Your task to perform on an android device: Go to Wikipedia Image 0: 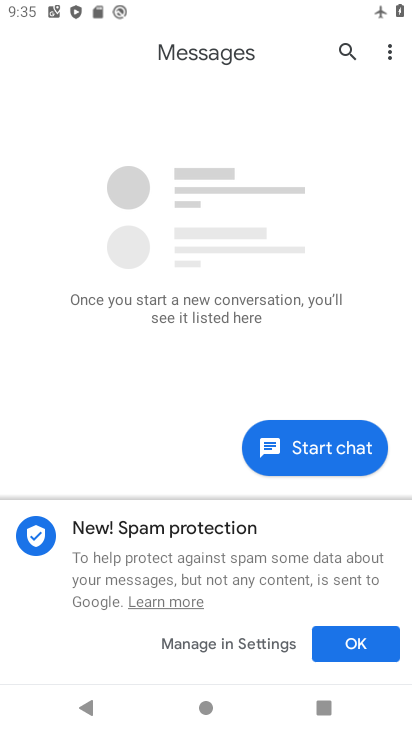
Step 0: press home button
Your task to perform on an android device: Go to Wikipedia Image 1: 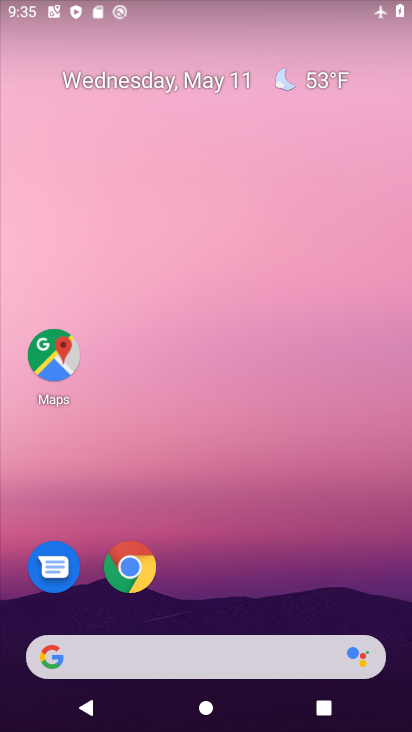
Step 1: click (266, 667)
Your task to perform on an android device: Go to Wikipedia Image 2: 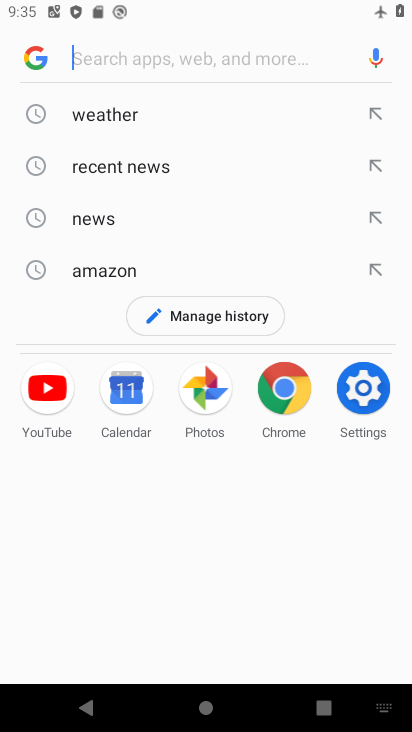
Step 2: type "wikipedia "
Your task to perform on an android device: Go to Wikipedia Image 3: 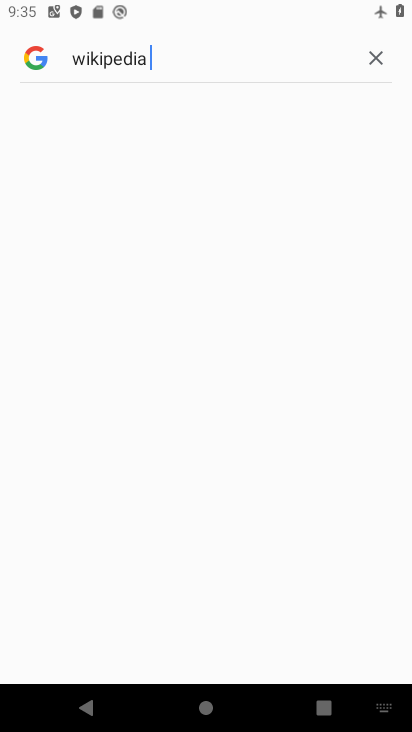
Step 3: task complete